Your task to perform on an android device: Open ESPN.com Image 0: 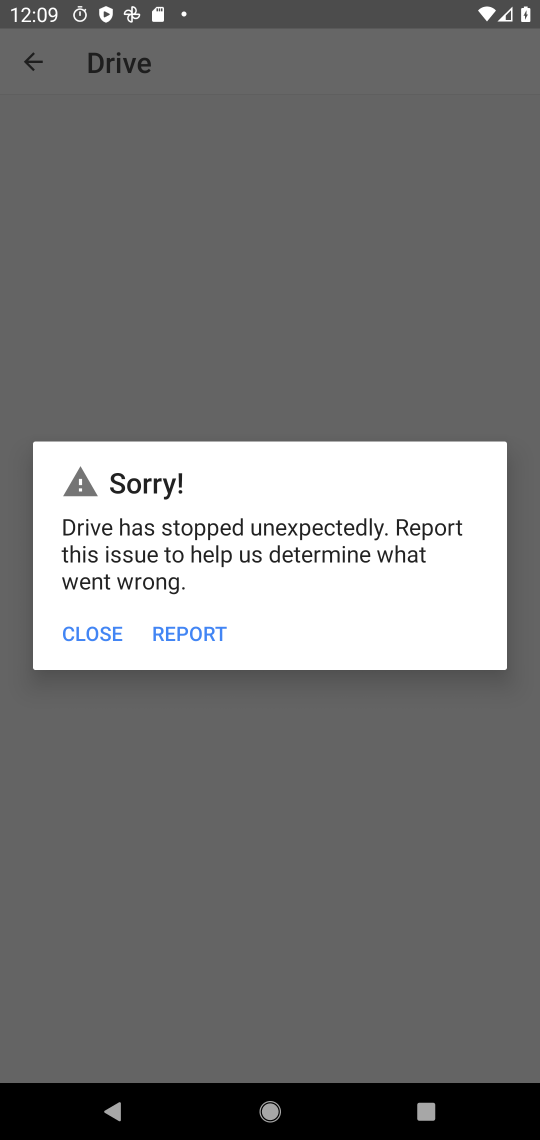
Step 0: press home button
Your task to perform on an android device: Open ESPN.com Image 1: 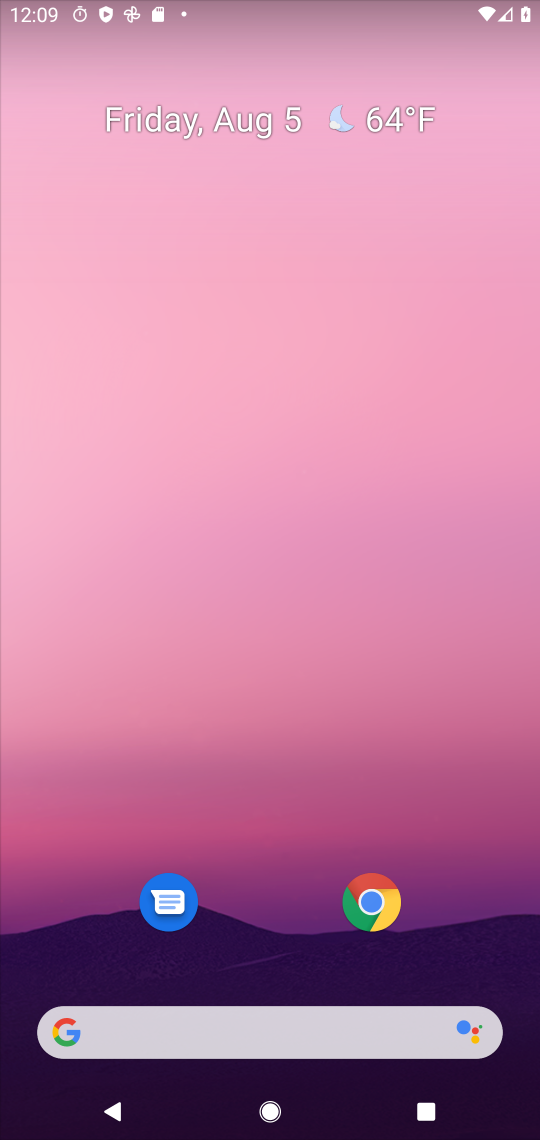
Step 1: drag from (341, 1040) to (306, 318)
Your task to perform on an android device: Open ESPN.com Image 2: 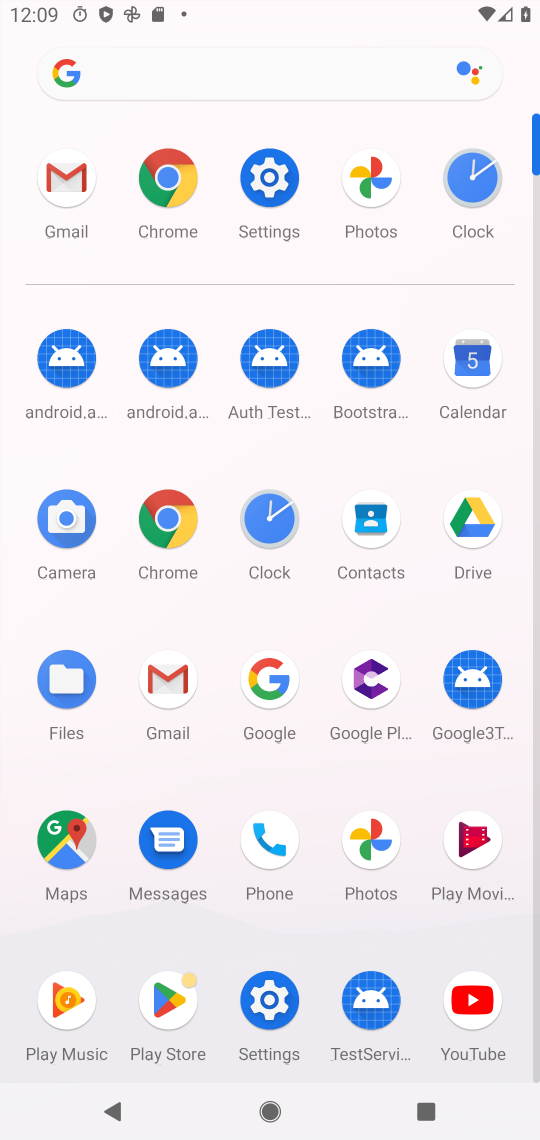
Step 2: click (170, 518)
Your task to perform on an android device: Open ESPN.com Image 3: 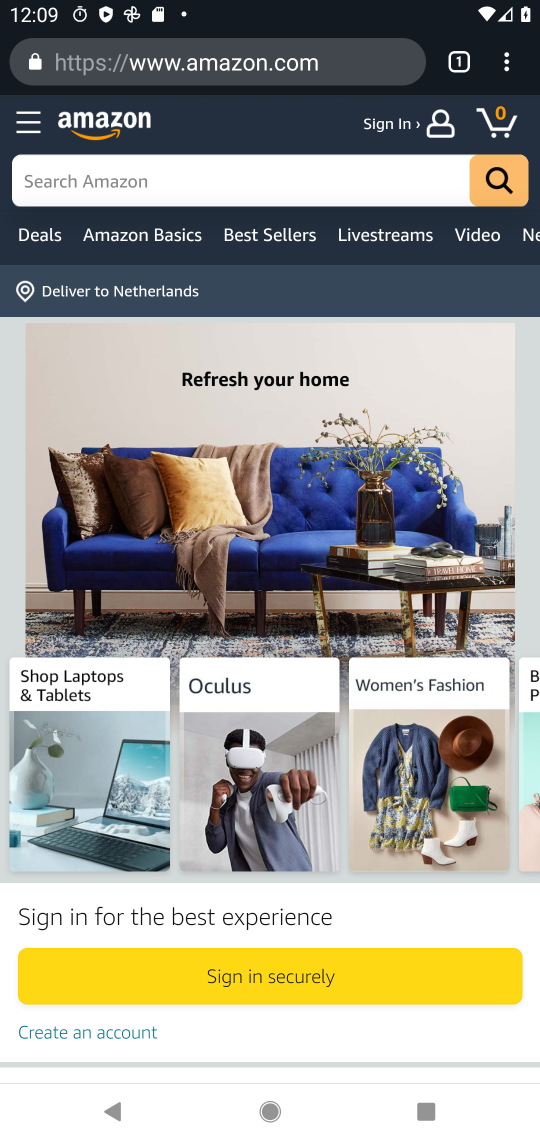
Step 3: click (453, 65)
Your task to perform on an android device: Open ESPN.com Image 4: 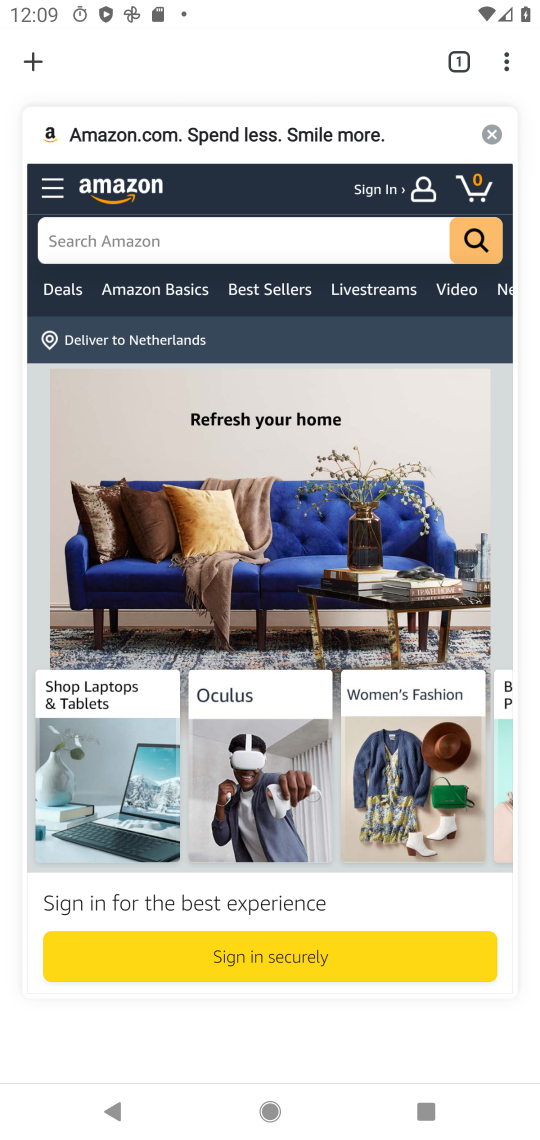
Step 4: click (36, 56)
Your task to perform on an android device: Open ESPN.com Image 5: 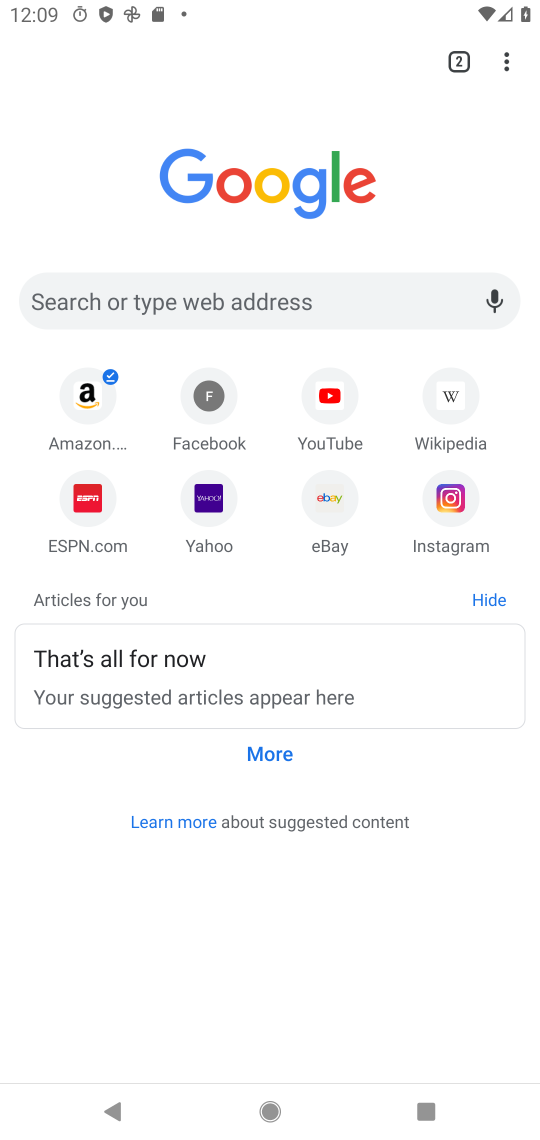
Step 5: click (100, 507)
Your task to perform on an android device: Open ESPN.com Image 6: 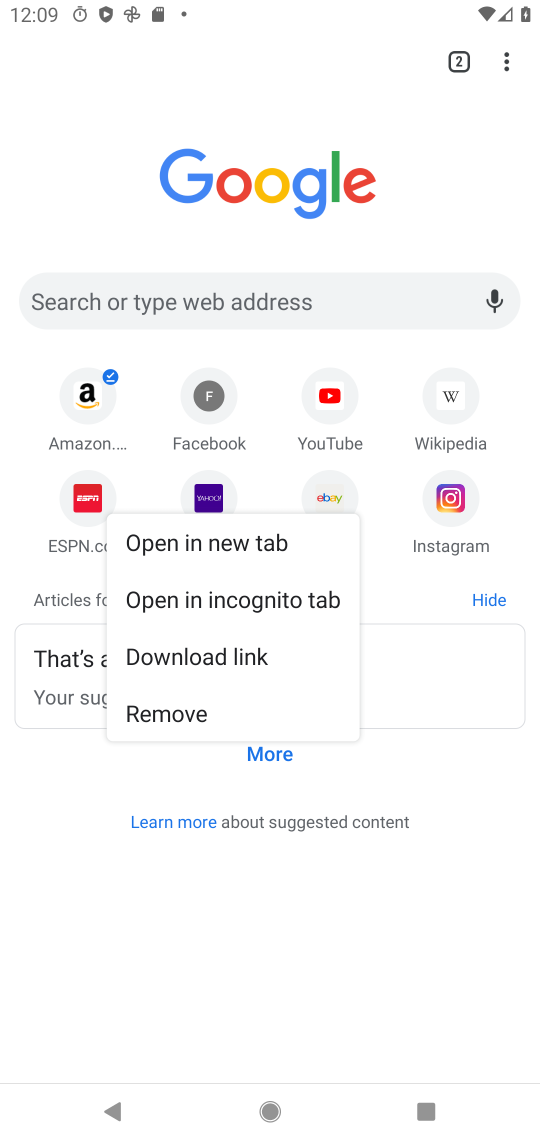
Step 6: click (67, 516)
Your task to perform on an android device: Open ESPN.com Image 7: 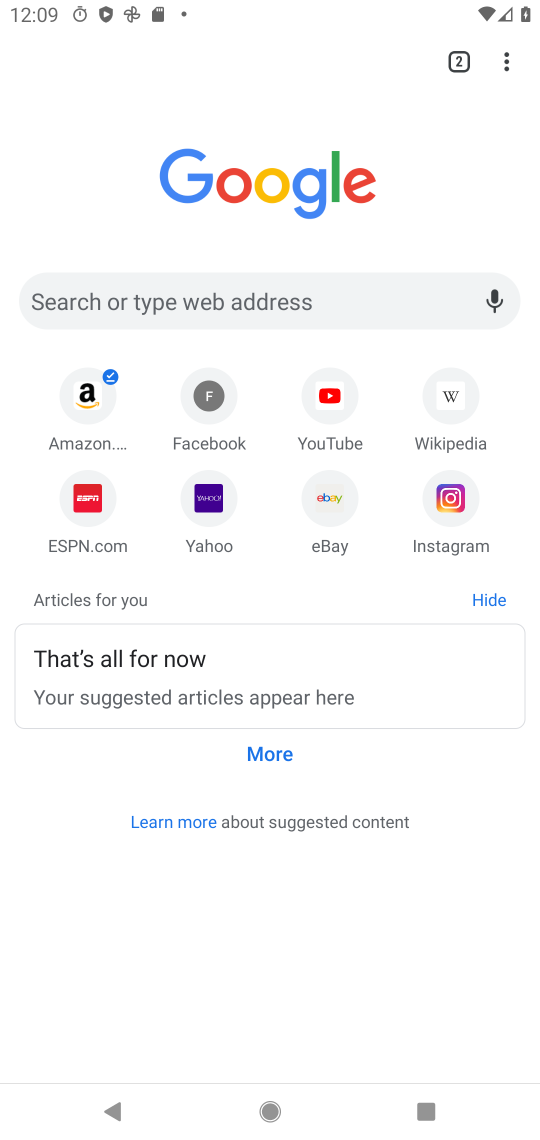
Step 7: click (72, 517)
Your task to perform on an android device: Open ESPN.com Image 8: 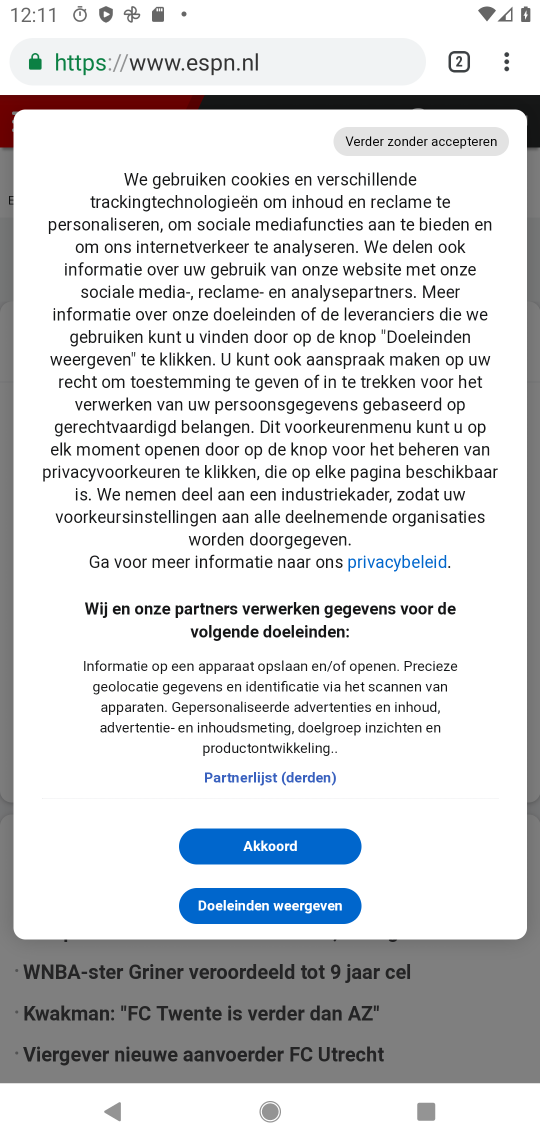
Step 8: click (289, 840)
Your task to perform on an android device: Open ESPN.com Image 9: 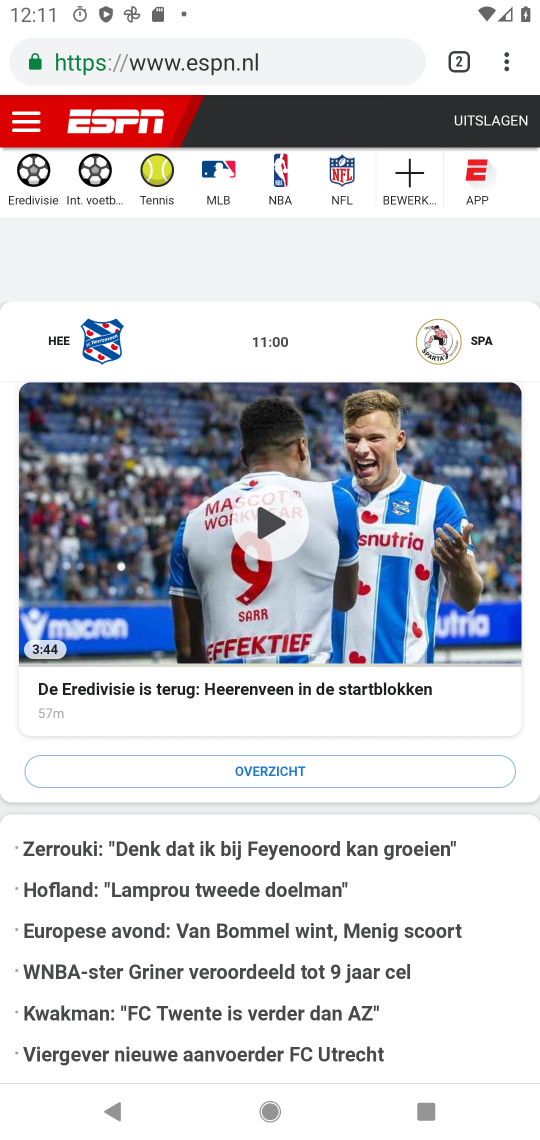
Step 9: task complete